Your task to perform on an android device: Open internet settings Image 0: 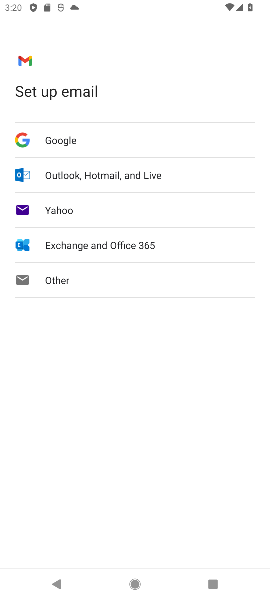
Step 0: press home button
Your task to perform on an android device: Open internet settings Image 1: 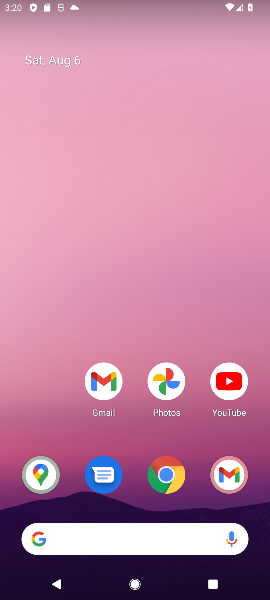
Step 1: drag from (17, 574) to (159, 185)
Your task to perform on an android device: Open internet settings Image 2: 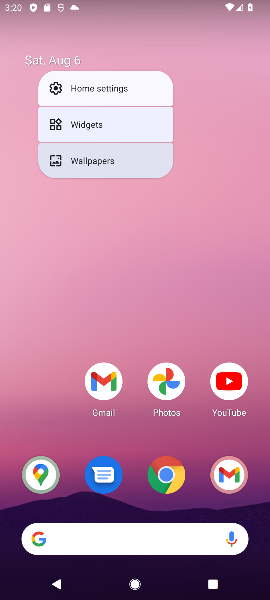
Step 2: click (40, 582)
Your task to perform on an android device: Open internet settings Image 3: 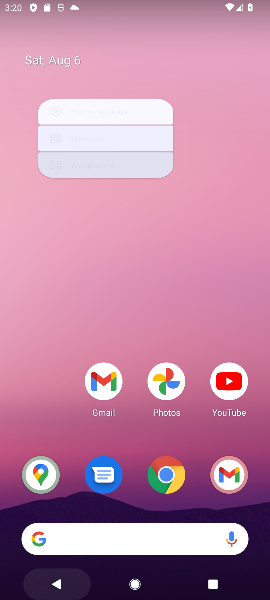
Step 3: drag from (72, 388) to (161, 156)
Your task to perform on an android device: Open internet settings Image 4: 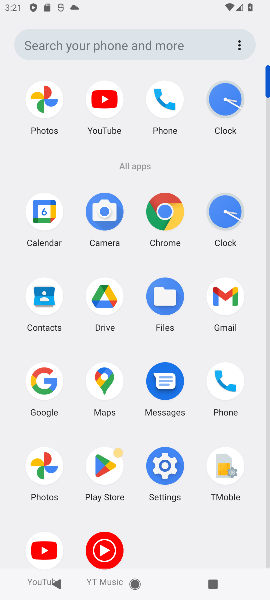
Step 4: click (149, 468)
Your task to perform on an android device: Open internet settings Image 5: 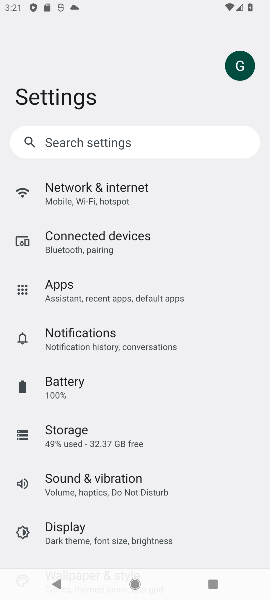
Step 5: click (82, 193)
Your task to perform on an android device: Open internet settings Image 6: 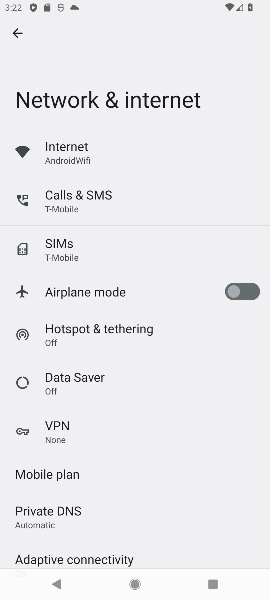
Step 6: task complete